Your task to perform on an android device: Do I have any events today? Image 0: 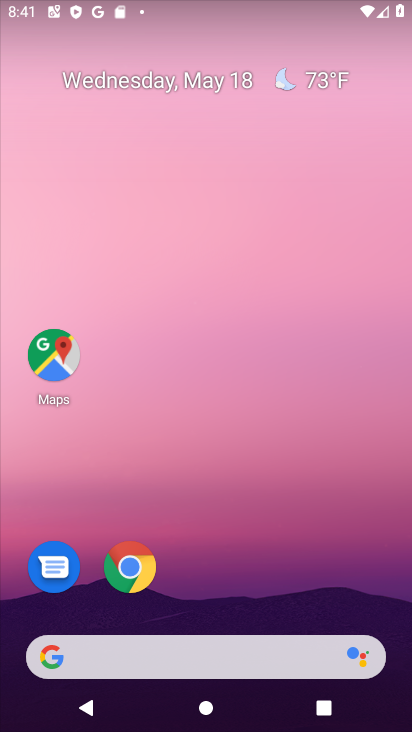
Step 0: drag from (330, 576) to (259, 3)
Your task to perform on an android device: Do I have any events today? Image 1: 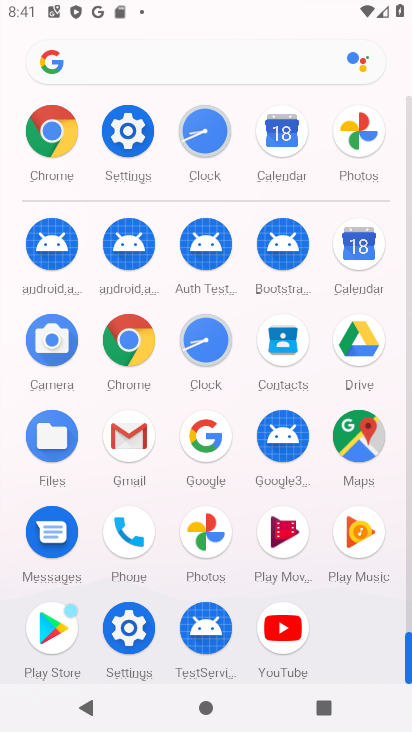
Step 1: drag from (8, 528) to (9, 206)
Your task to perform on an android device: Do I have any events today? Image 2: 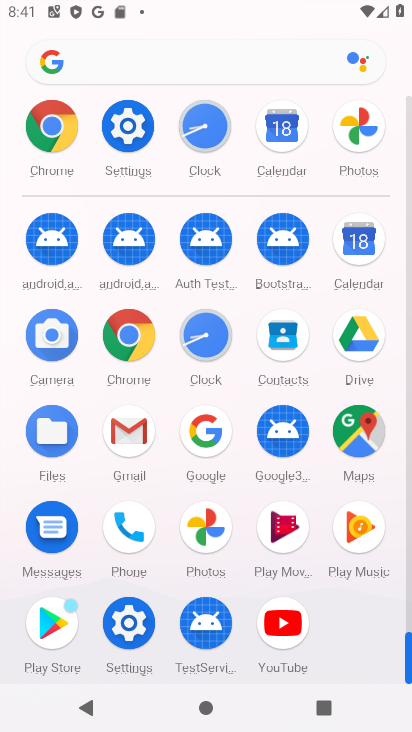
Step 2: click (272, 122)
Your task to perform on an android device: Do I have any events today? Image 3: 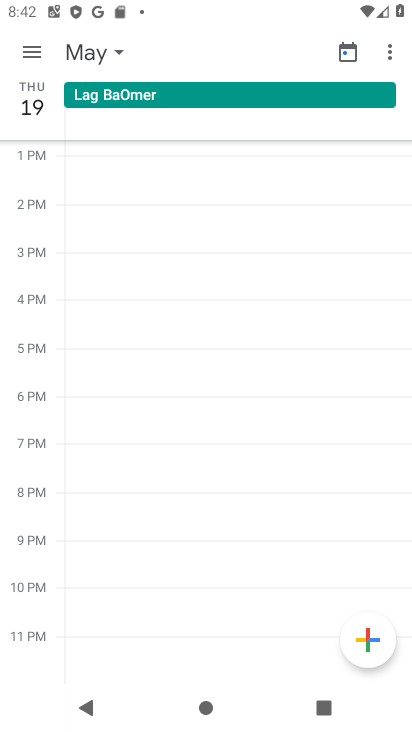
Step 3: click (338, 57)
Your task to perform on an android device: Do I have any events today? Image 4: 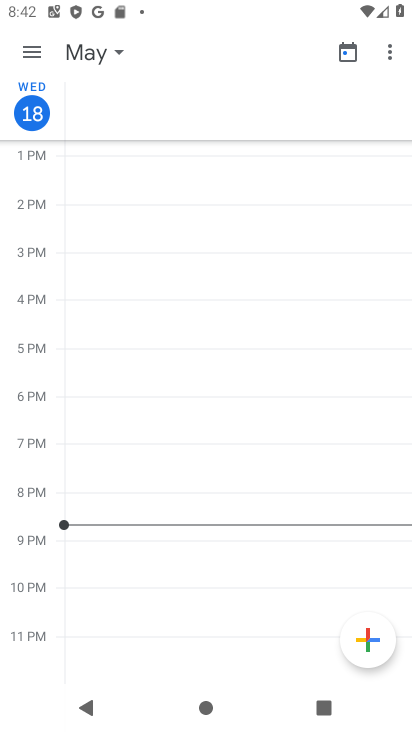
Step 4: task complete